Your task to perform on an android device: Is it going to rain today? Image 0: 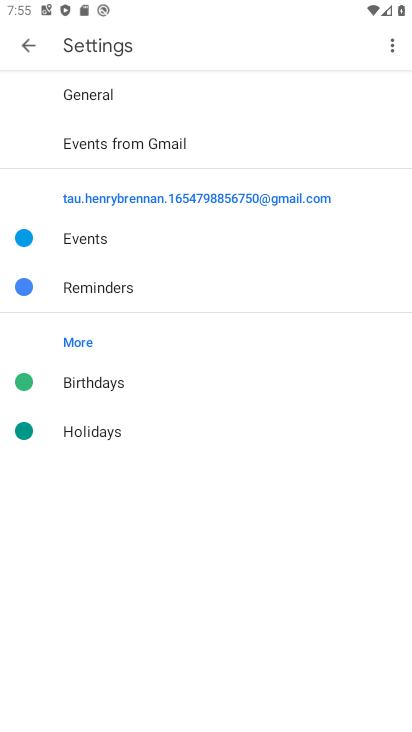
Step 0: press home button
Your task to perform on an android device: Is it going to rain today? Image 1: 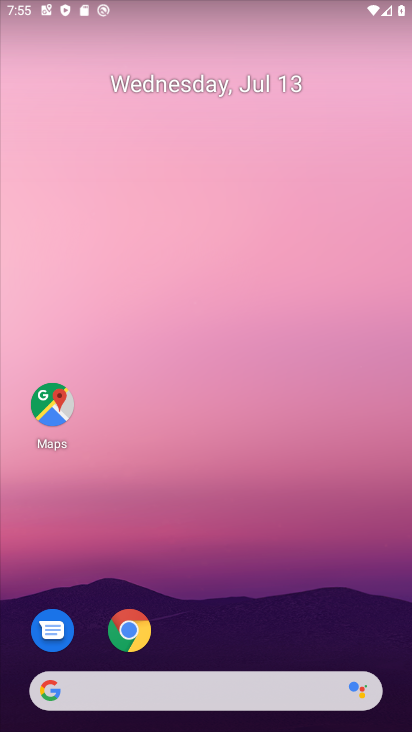
Step 1: click (226, 701)
Your task to perform on an android device: Is it going to rain today? Image 2: 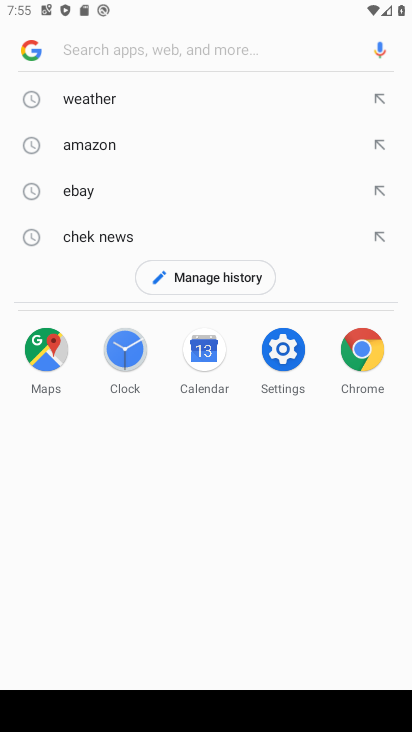
Step 2: click (167, 99)
Your task to perform on an android device: Is it going to rain today? Image 3: 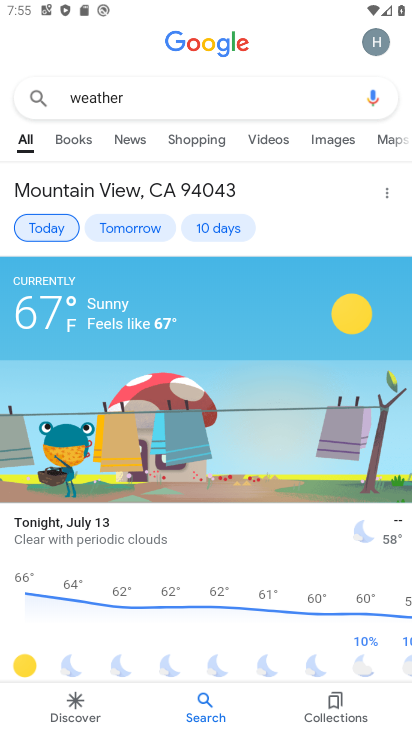
Step 3: click (42, 227)
Your task to perform on an android device: Is it going to rain today? Image 4: 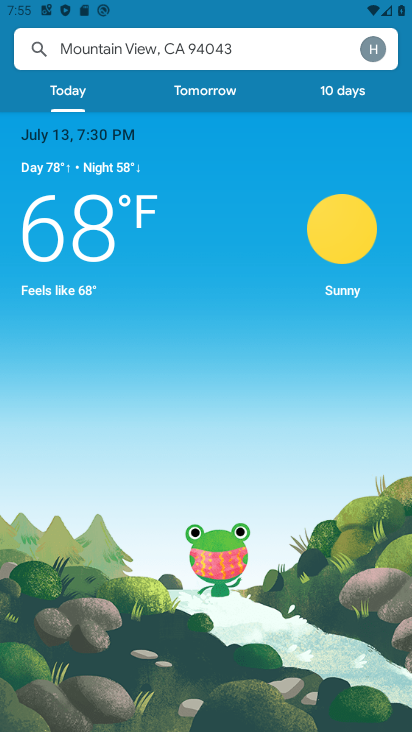
Step 4: task complete